Your task to perform on an android device: Show me popular games on the Play Store Image 0: 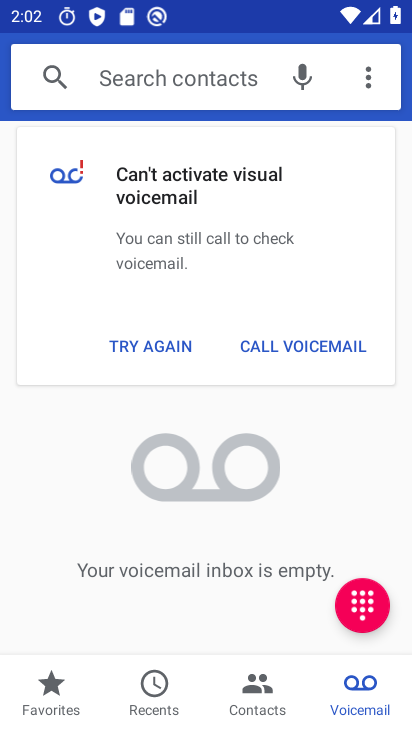
Step 0: press home button
Your task to perform on an android device: Show me popular games on the Play Store Image 1: 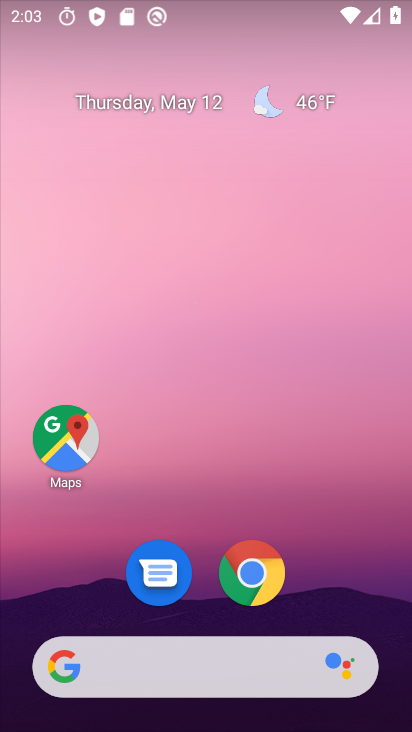
Step 1: drag from (206, 618) to (285, 74)
Your task to perform on an android device: Show me popular games on the Play Store Image 2: 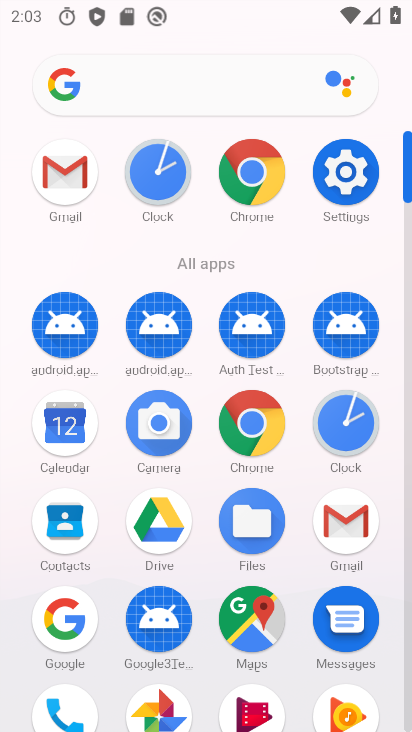
Step 2: drag from (125, 657) to (205, 201)
Your task to perform on an android device: Show me popular games on the Play Store Image 3: 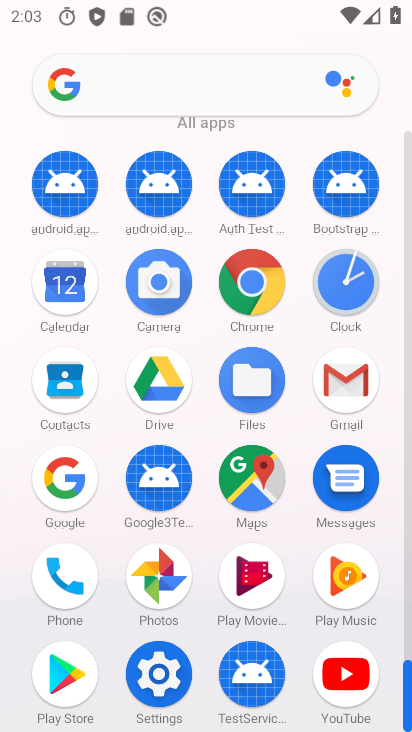
Step 3: click (61, 667)
Your task to perform on an android device: Show me popular games on the Play Store Image 4: 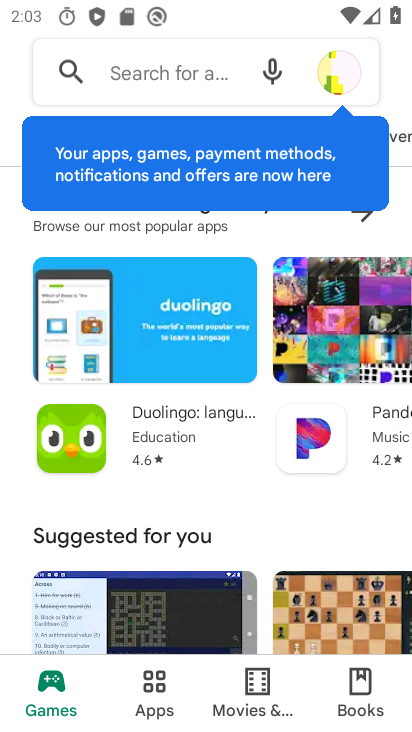
Step 4: click (270, 502)
Your task to perform on an android device: Show me popular games on the Play Store Image 5: 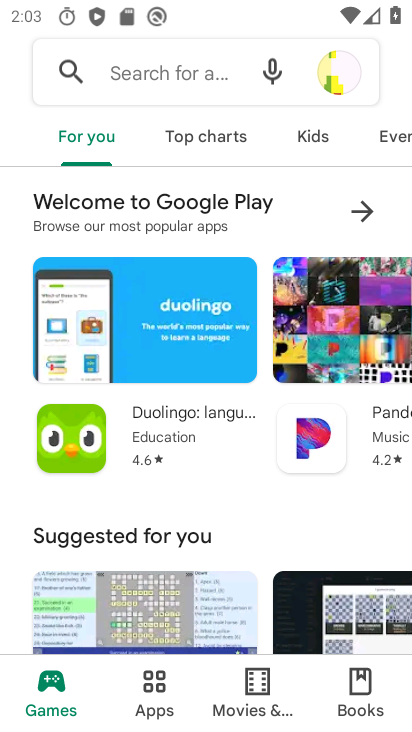
Step 5: click (231, 129)
Your task to perform on an android device: Show me popular games on the Play Store Image 6: 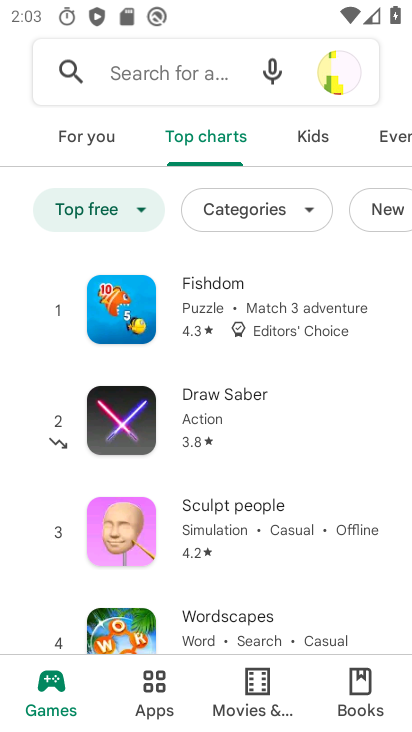
Step 6: task complete